Your task to perform on an android device: toggle wifi Image 0: 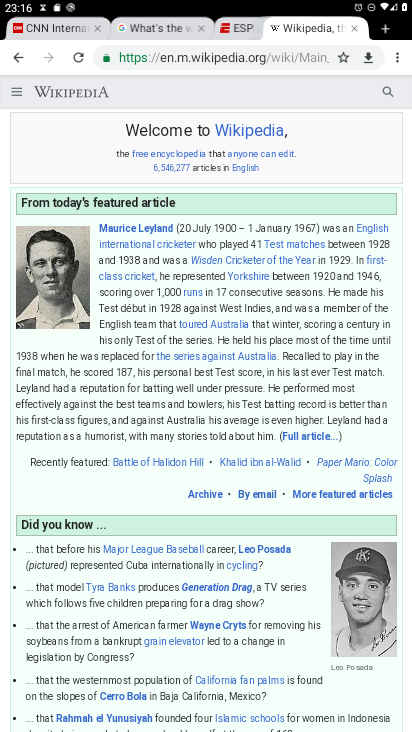
Step 0: press home button
Your task to perform on an android device: toggle wifi Image 1: 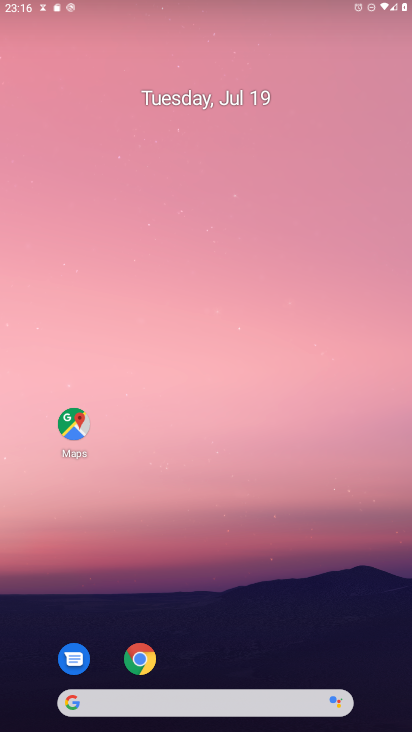
Step 1: drag from (225, 617) to (224, 171)
Your task to perform on an android device: toggle wifi Image 2: 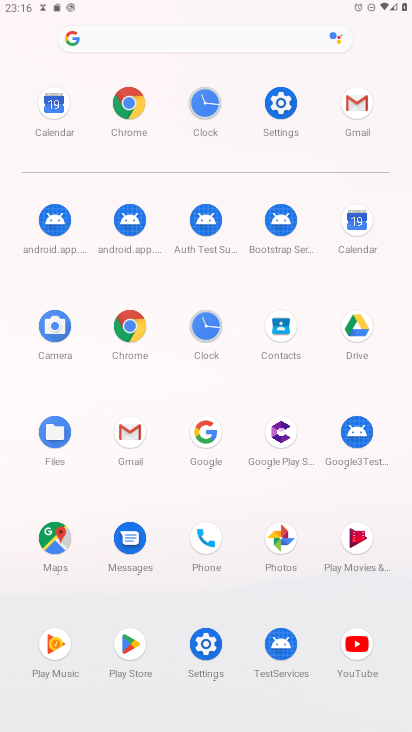
Step 2: click (276, 106)
Your task to perform on an android device: toggle wifi Image 3: 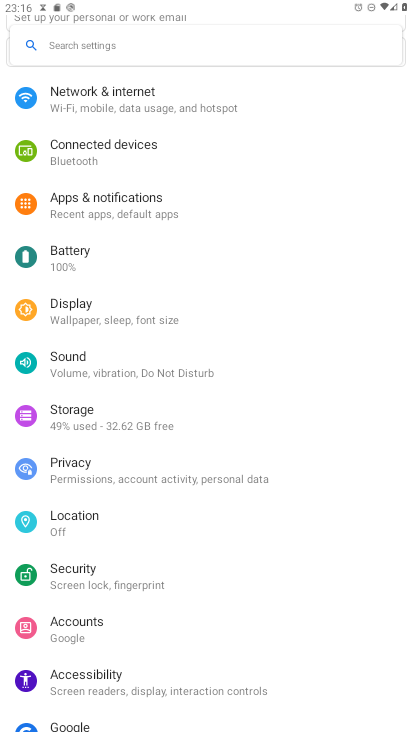
Step 3: click (115, 107)
Your task to perform on an android device: toggle wifi Image 4: 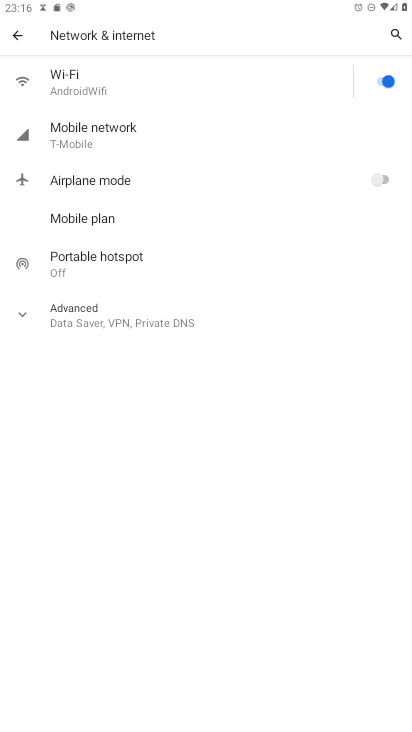
Step 4: click (109, 80)
Your task to perform on an android device: toggle wifi Image 5: 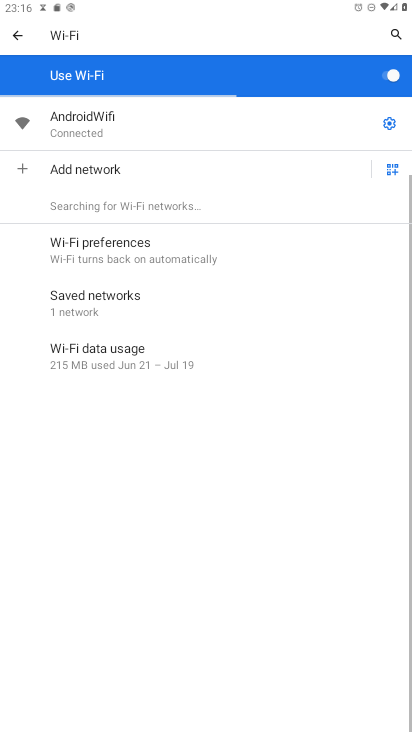
Step 5: click (388, 84)
Your task to perform on an android device: toggle wifi Image 6: 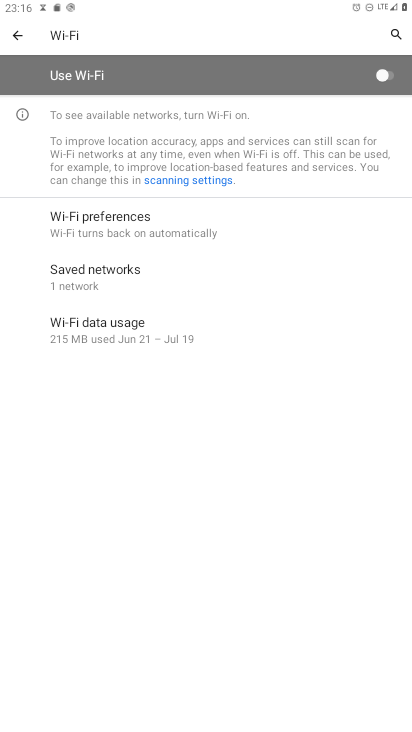
Step 6: task complete